Your task to perform on an android device: Show me recent news Image 0: 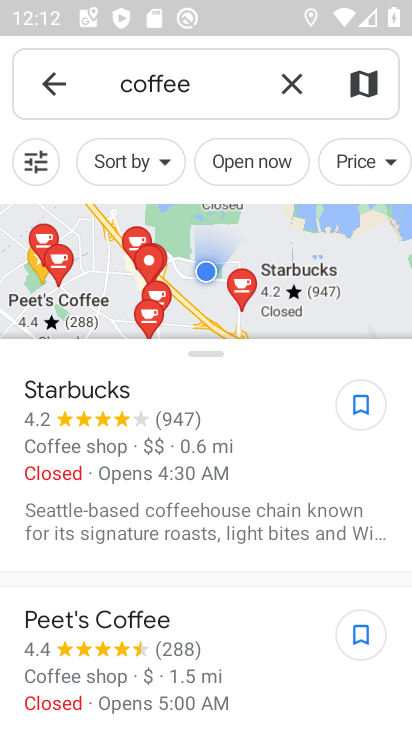
Step 0: press home button
Your task to perform on an android device: Show me recent news Image 1: 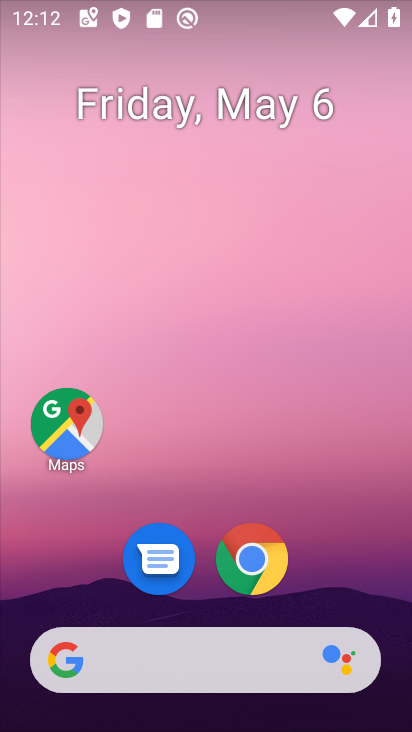
Step 1: drag from (313, 587) to (198, 21)
Your task to perform on an android device: Show me recent news Image 2: 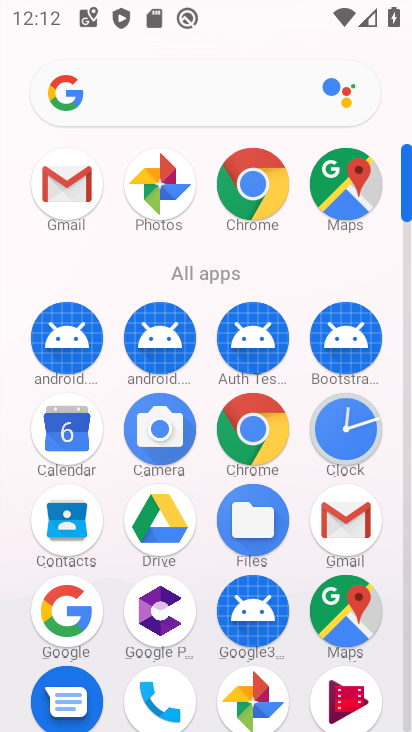
Step 2: click (119, 100)
Your task to perform on an android device: Show me recent news Image 3: 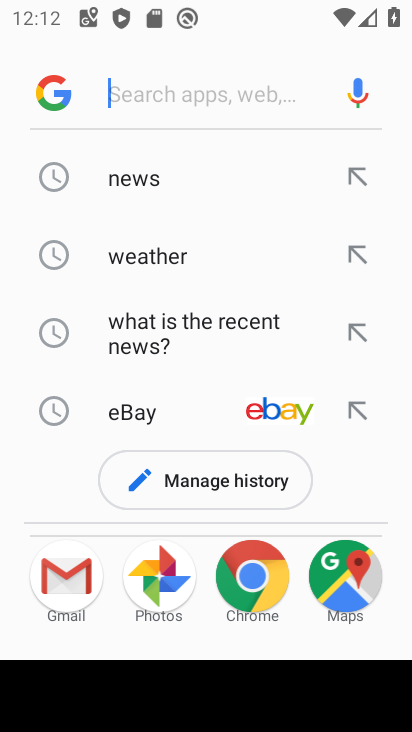
Step 3: type "recent news"
Your task to perform on an android device: Show me recent news Image 4: 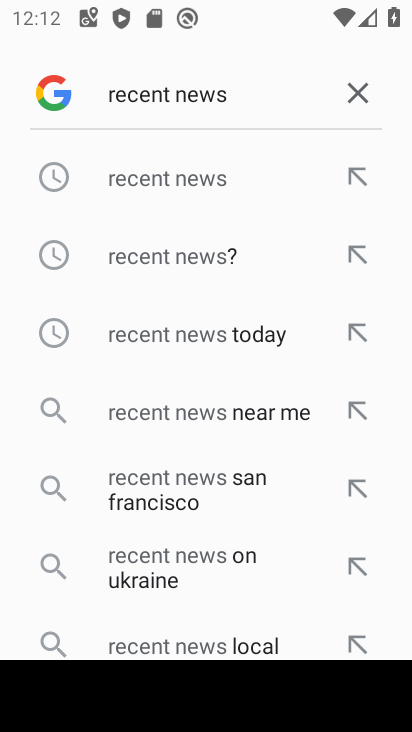
Step 4: click (119, 185)
Your task to perform on an android device: Show me recent news Image 5: 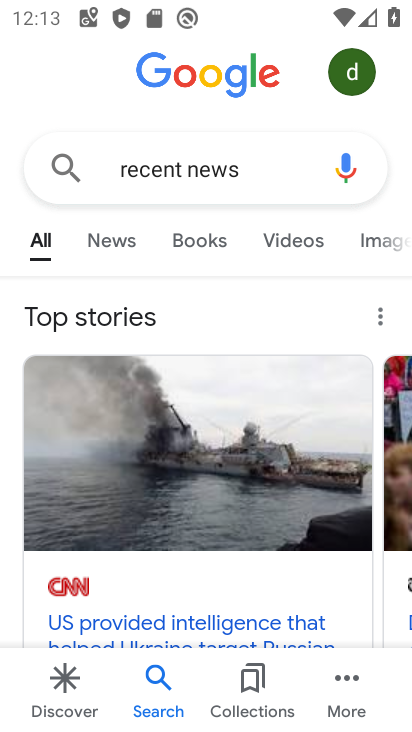
Step 5: click (101, 238)
Your task to perform on an android device: Show me recent news Image 6: 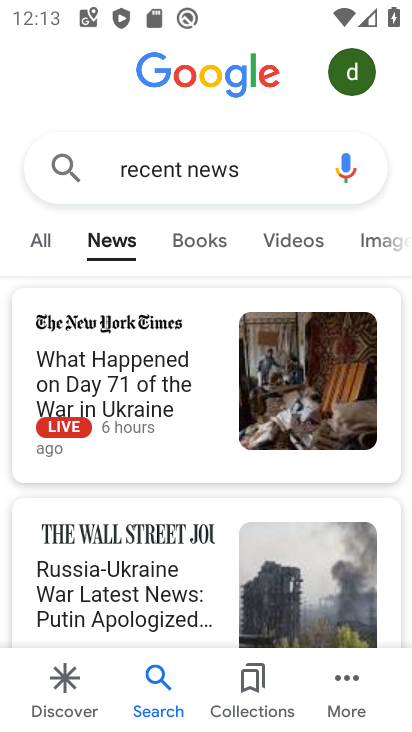
Step 6: task complete